Your task to perform on an android device: Open Wikipedia Image 0: 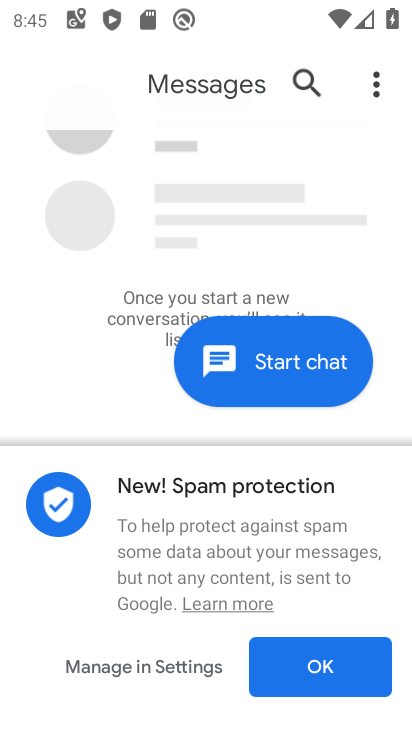
Step 0: press home button
Your task to perform on an android device: Open Wikipedia Image 1: 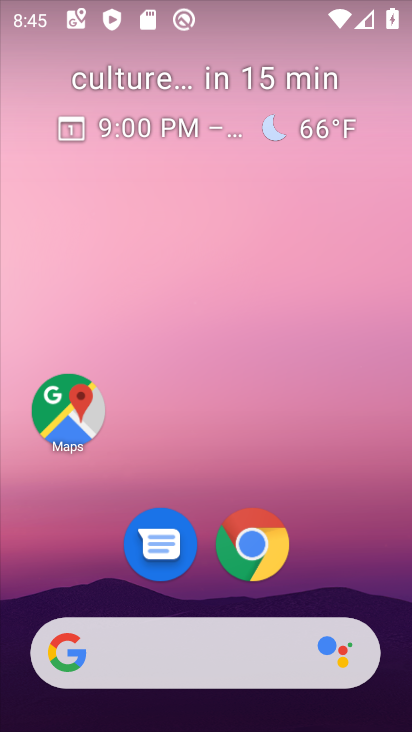
Step 1: click (255, 538)
Your task to perform on an android device: Open Wikipedia Image 2: 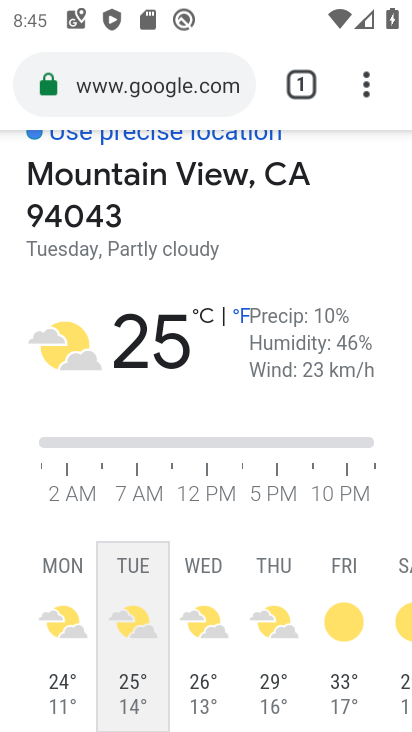
Step 2: click (89, 83)
Your task to perform on an android device: Open Wikipedia Image 3: 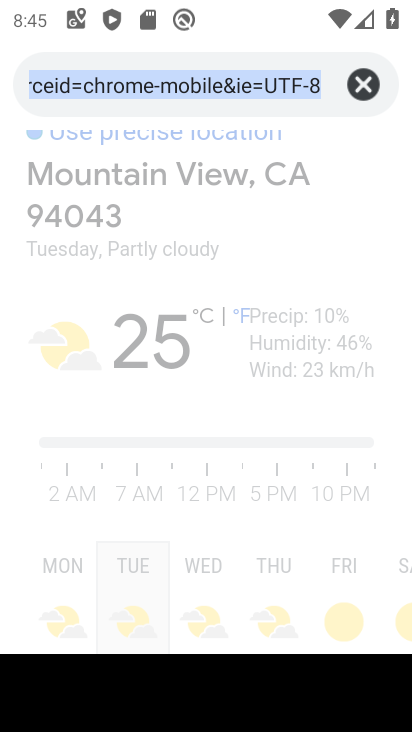
Step 3: type "wikipedia"
Your task to perform on an android device: Open Wikipedia Image 4: 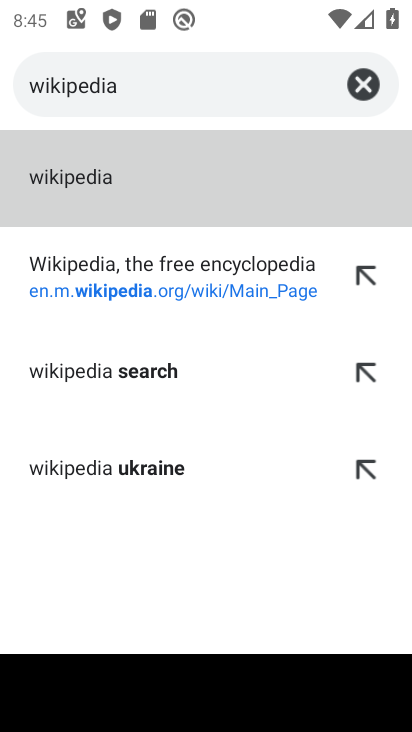
Step 4: click (166, 208)
Your task to perform on an android device: Open Wikipedia Image 5: 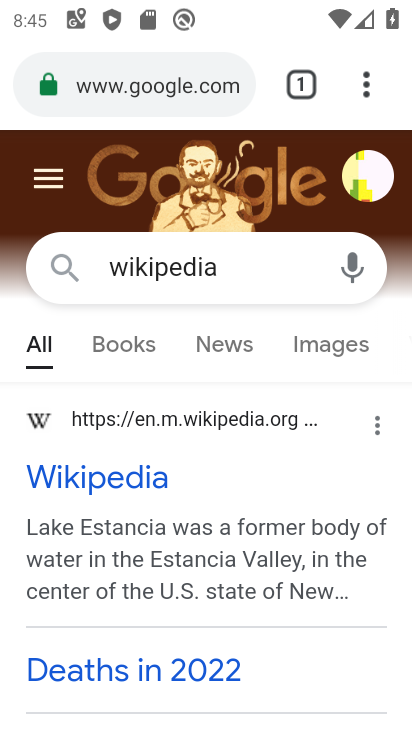
Step 5: task complete